Your task to perform on an android device: Set the phone to "Do not disturb". Image 0: 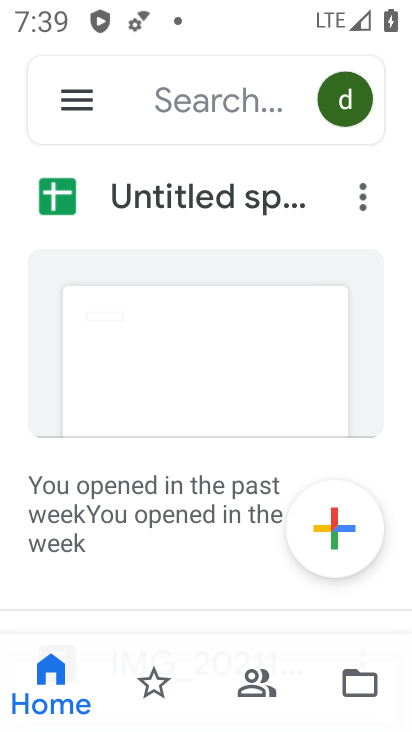
Step 0: press home button
Your task to perform on an android device: Set the phone to "Do not disturb". Image 1: 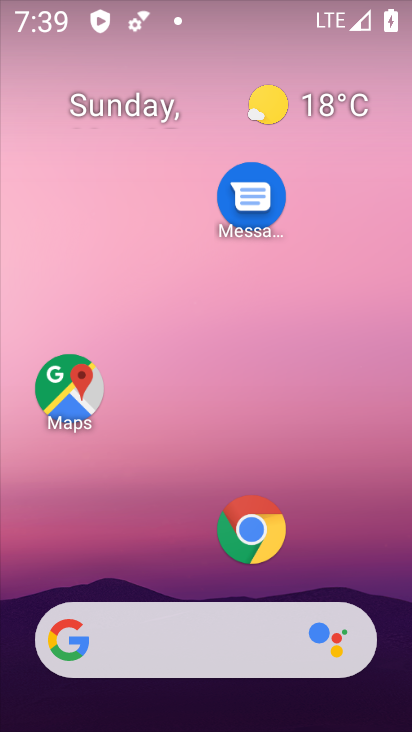
Step 1: drag from (208, 442) to (219, 161)
Your task to perform on an android device: Set the phone to "Do not disturb". Image 2: 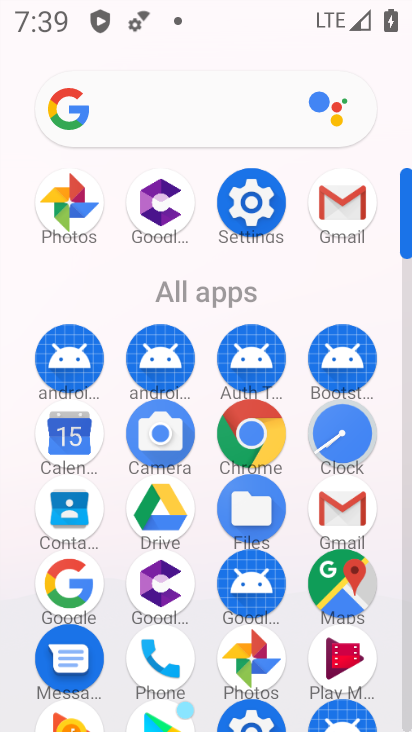
Step 2: click (252, 202)
Your task to perform on an android device: Set the phone to "Do not disturb". Image 3: 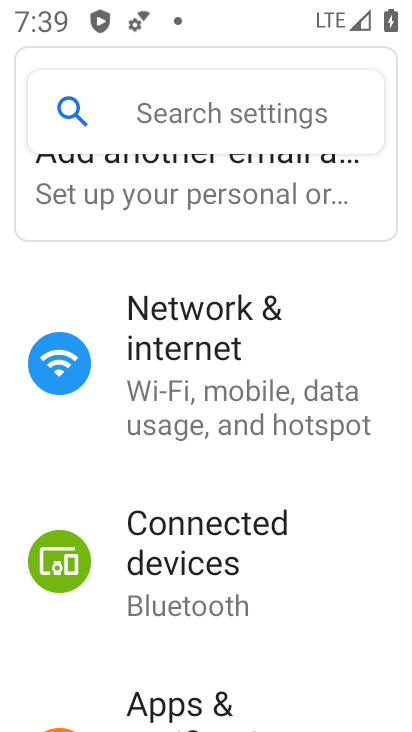
Step 3: click (205, 368)
Your task to perform on an android device: Set the phone to "Do not disturb". Image 4: 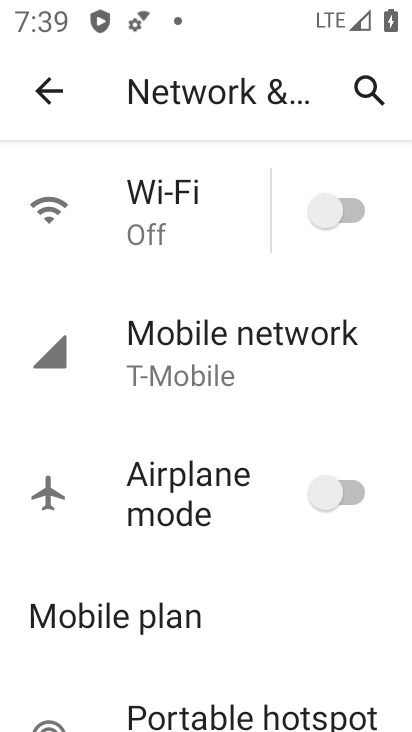
Step 4: click (361, 207)
Your task to perform on an android device: Set the phone to "Do not disturb". Image 5: 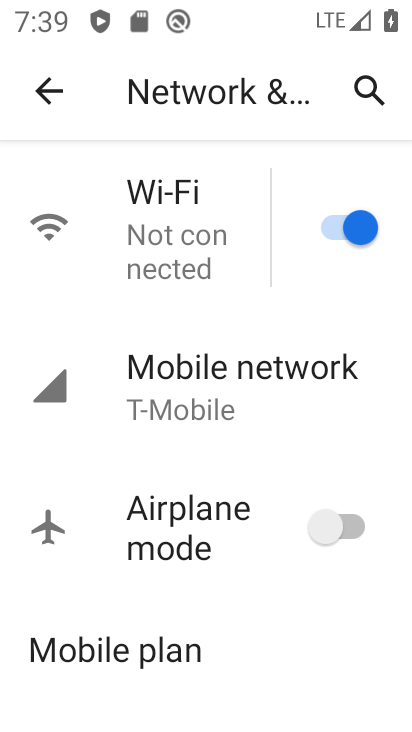
Step 5: task complete